Your task to perform on an android device: set default search engine in the chrome app Image 0: 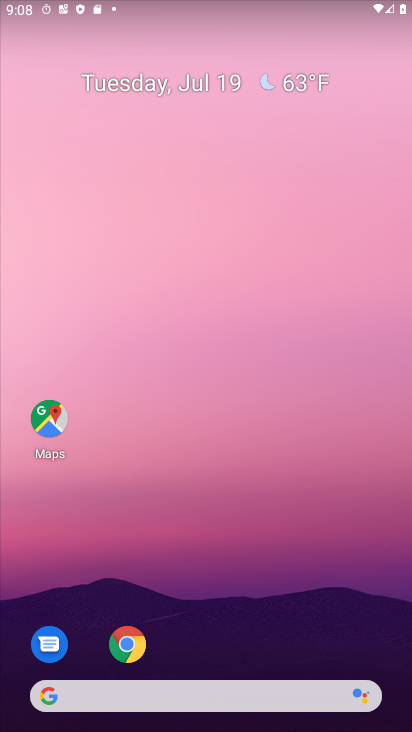
Step 0: drag from (322, 687) to (266, 227)
Your task to perform on an android device: set default search engine in the chrome app Image 1: 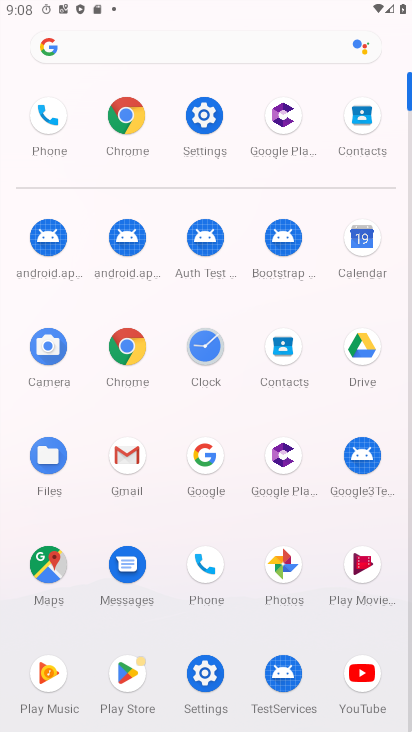
Step 1: click (134, 121)
Your task to perform on an android device: set default search engine in the chrome app Image 2: 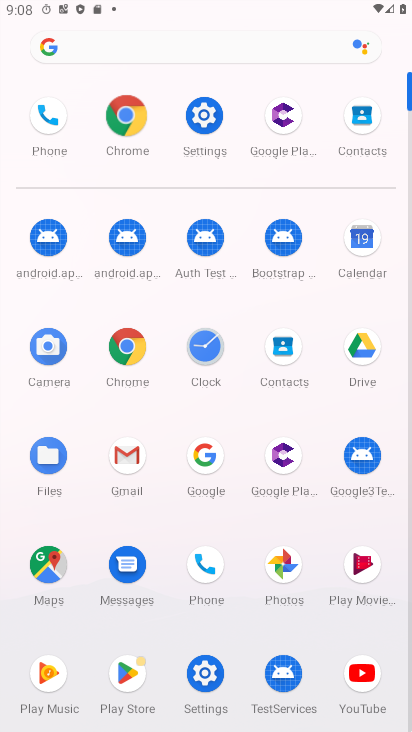
Step 2: click (134, 121)
Your task to perform on an android device: set default search engine in the chrome app Image 3: 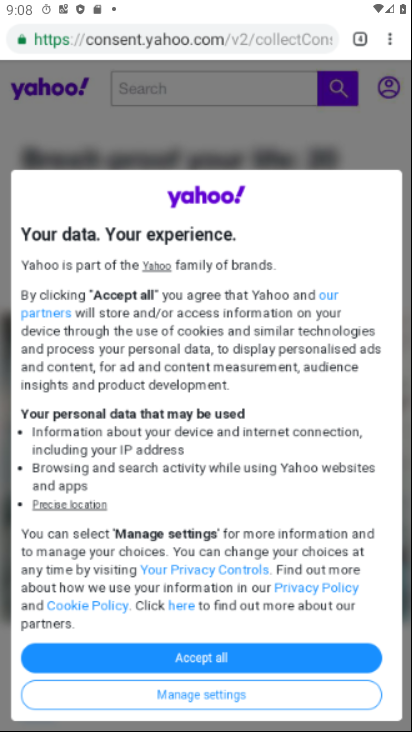
Step 3: drag from (383, 40) to (352, 223)
Your task to perform on an android device: set default search engine in the chrome app Image 4: 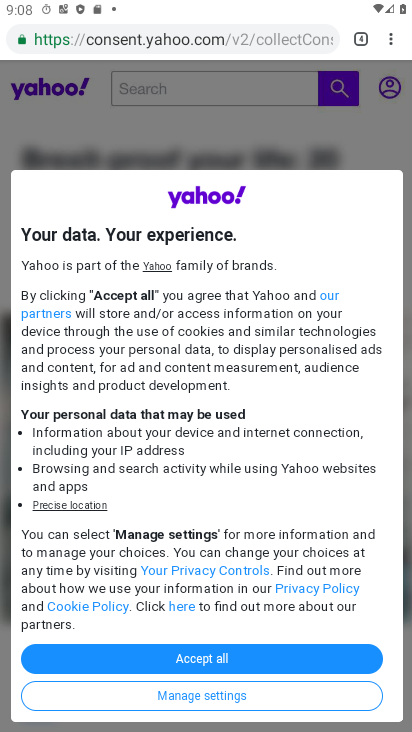
Step 4: drag from (390, 44) to (237, 470)
Your task to perform on an android device: set default search engine in the chrome app Image 5: 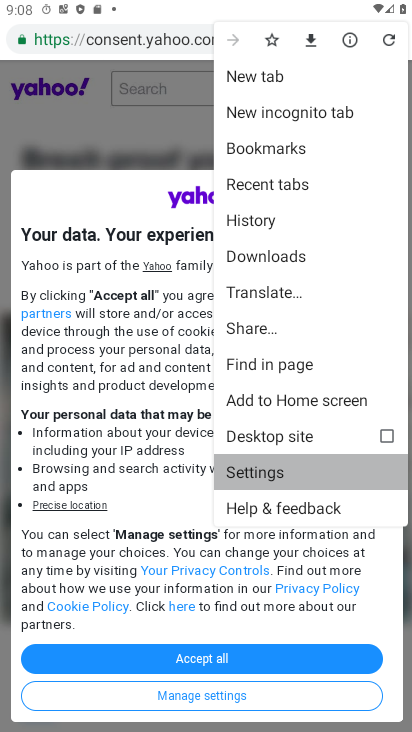
Step 5: click (238, 473)
Your task to perform on an android device: set default search engine in the chrome app Image 6: 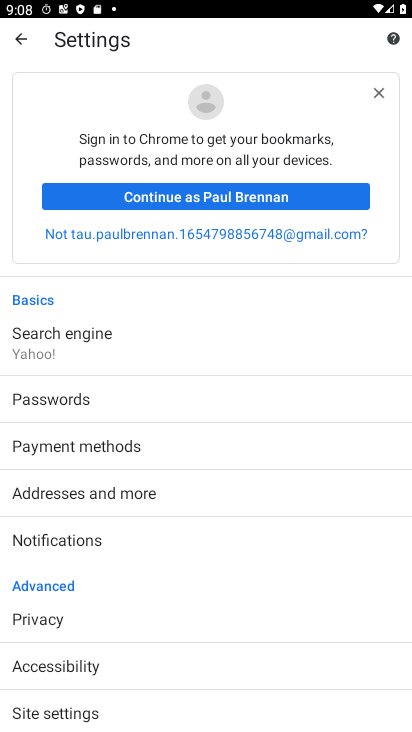
Step 6: drag from (160, 718) to (160, 387)
Your task to perform on an android device: set default search engine in the chrome app Image 7: 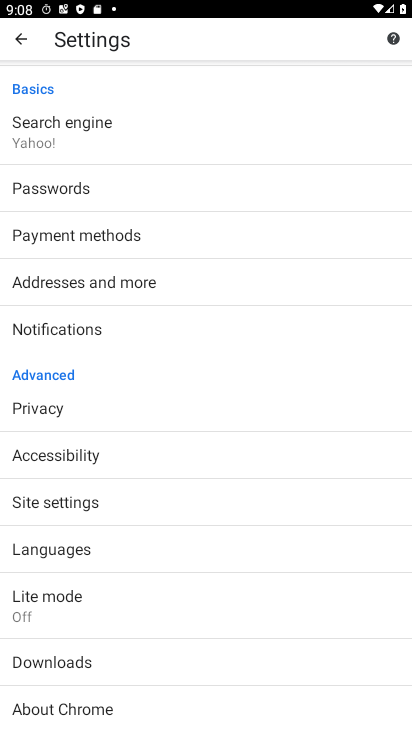
Step 7: click (45, 501)
Your task to perform on an android device: set default search engine in the chrome app Image 8: 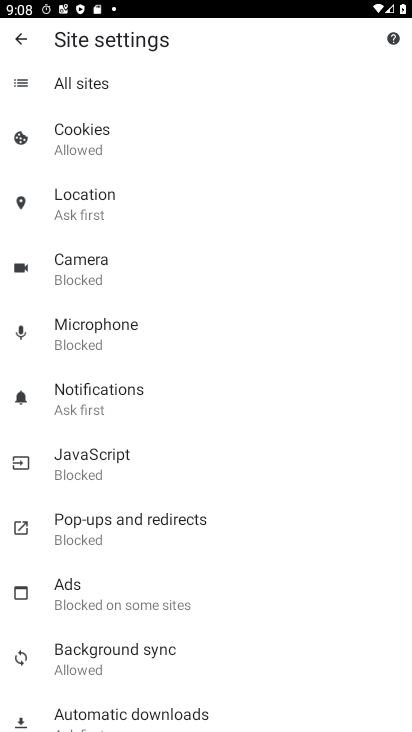
Step 8: drag from (116, 516) to (115, 192)
Your task to perform on an android device: set default search engine in the chrome app Image 9: 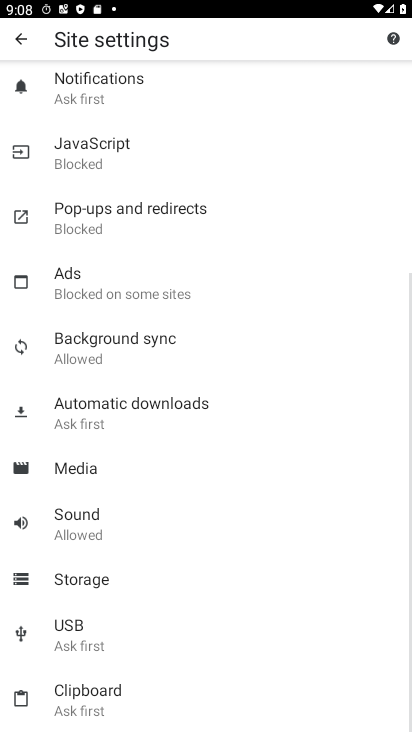
Step 9: drag from (95, 266) to (136, 678)
Your task to perform on an android device: set default search engine in the chrome app Image 10: 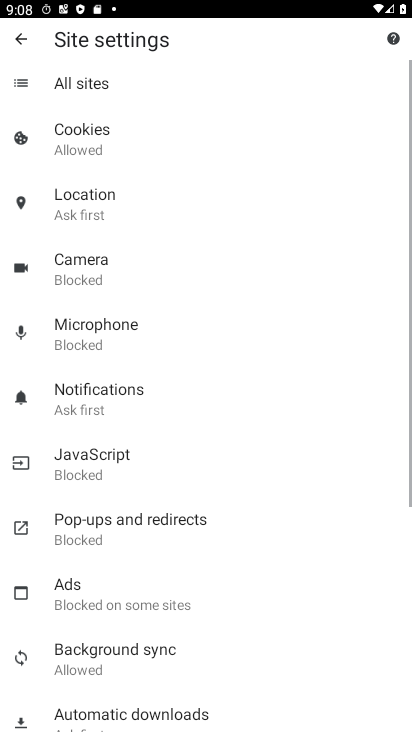
Step 10: click (19, 35)
Your task to perform on an android device: set default search engine in the chrome app Image 11: 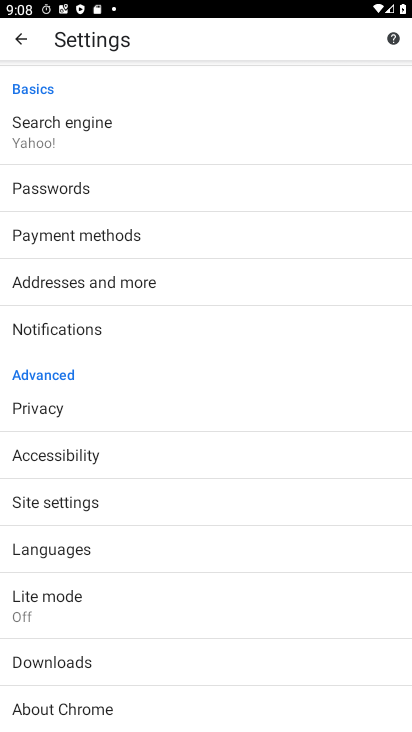
Step 11: click (49, 128)
Your task to perform on an android device: set default search engine in the chrome app Image 12: 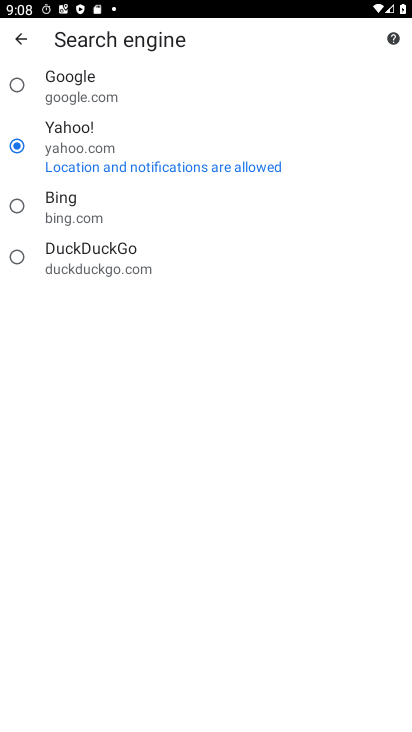
Step 12: click (19, 82)
Your task to perform on an android device: set default search engine in the chrome app Image 13: 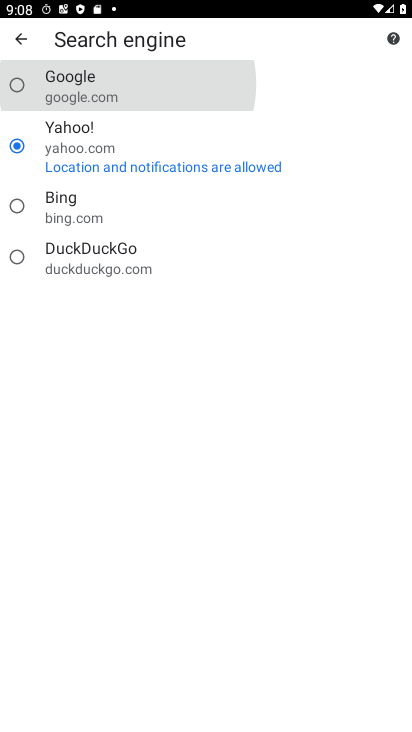
Step 13: click (18, 81)
Your task to perform on an android device: set default search engine in the chrome app Image 14: 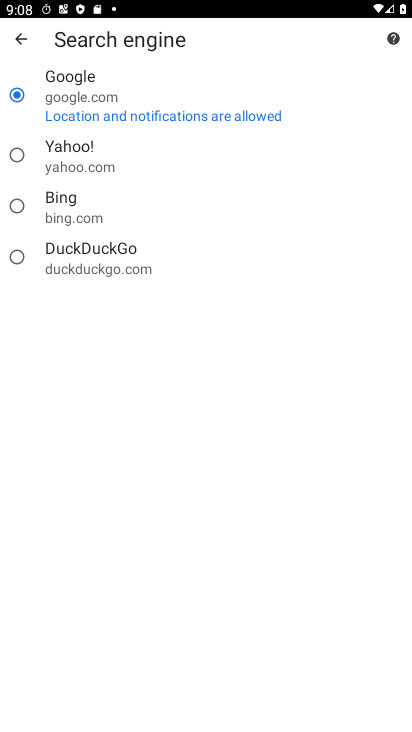
Step 14: task complete